Your task to perform on an android device: Search for seafood restaurants on Google Maps Image 0: 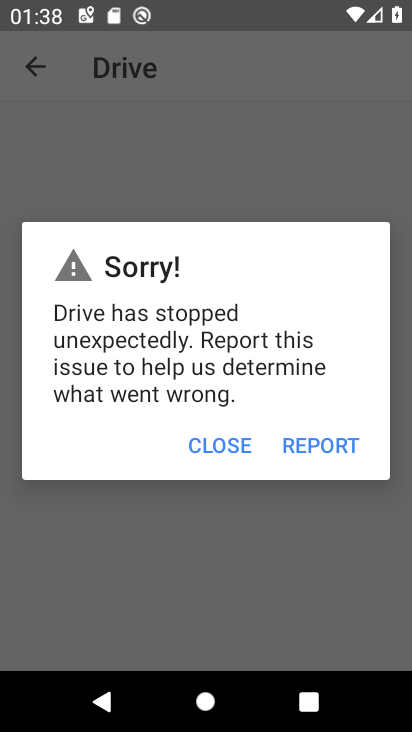
Step 0: press home button
Your task to perform on an android device: Search for seafood restaurants on Google Maps Image 1: 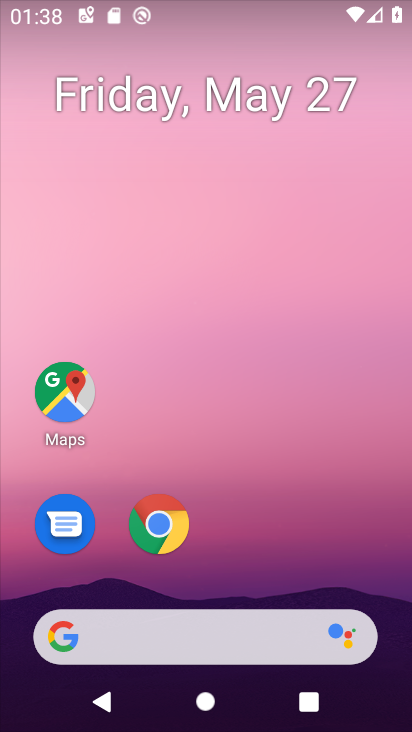
Step 1: click (55, 394)
Your task to perform on an android device: Search for seafood restaurants on Google Maps Image 2: 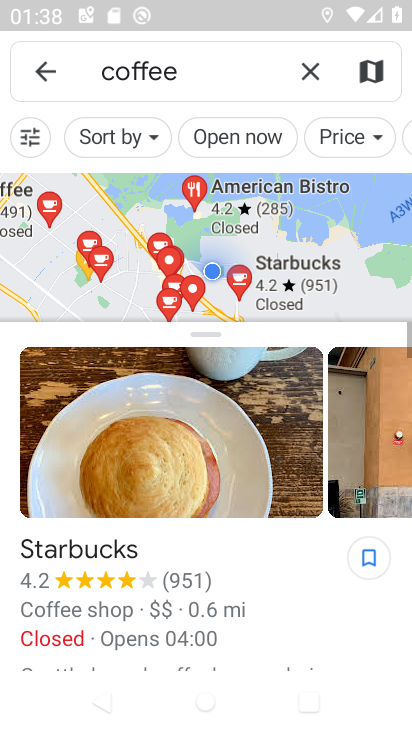
Step 2: click (308, 65)
Your task to perform on an android device: Search for seafood restaurants on Google Maps Image 3: 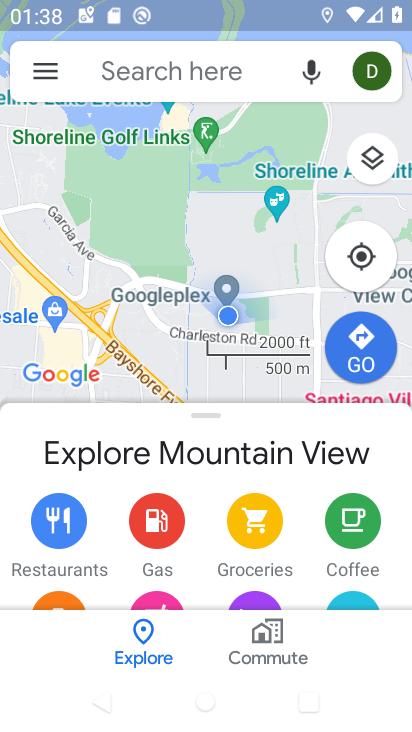
Step 3: click (223, 63)
Your task to perform on an android device: Search for seafood restaurants on Google Maps Image 4: 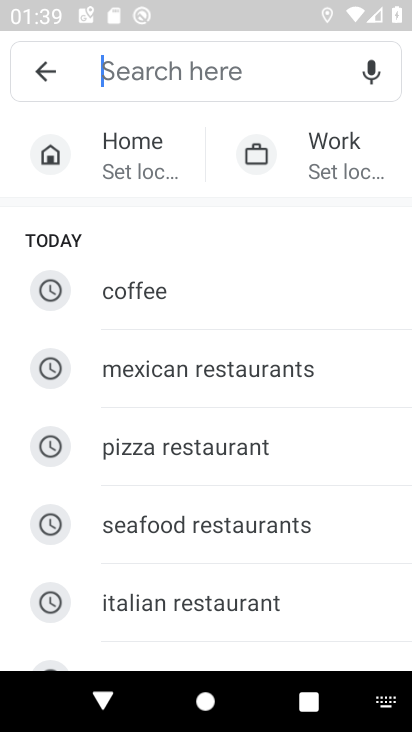
Step 4: click (243, 520)
Your task to perform on an android device: Search for seafood restaurants on Google Maps Image 5: 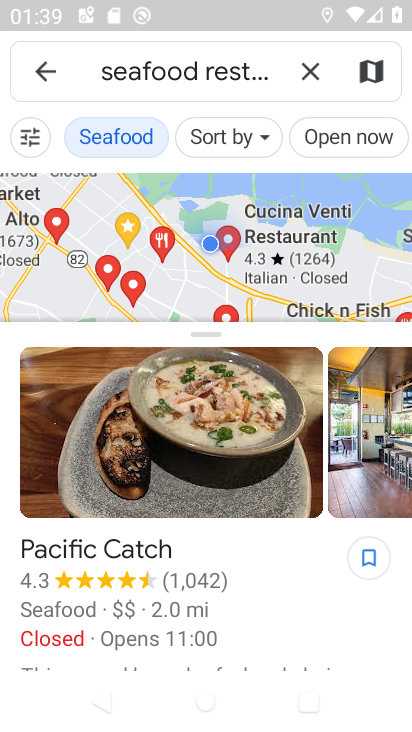
Step 5: task complete